Your task to perform on an android device: open a new tab in the chrome app Image 0: 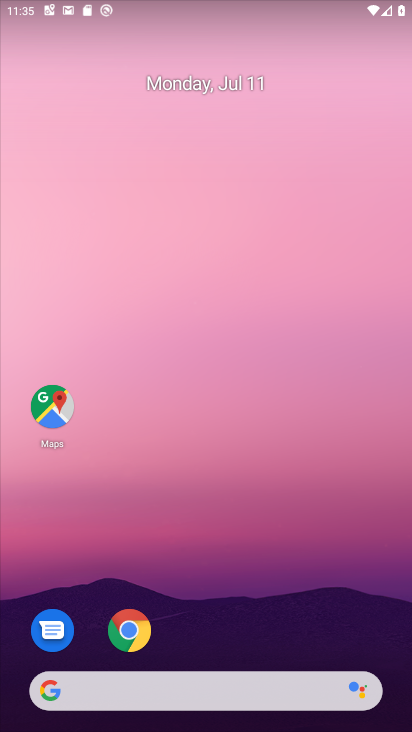
Step 0: drag from (267, 643) to (255, 168)
Your task to perform on an android device: open a new tab in the chrome app Image 1: 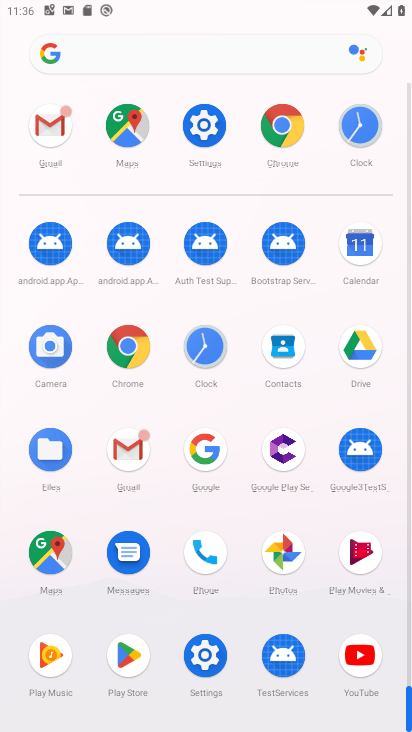
Step 1: click (138, 372)
Your task to perform on an android device: open a new tab in the chrome app Image 2: 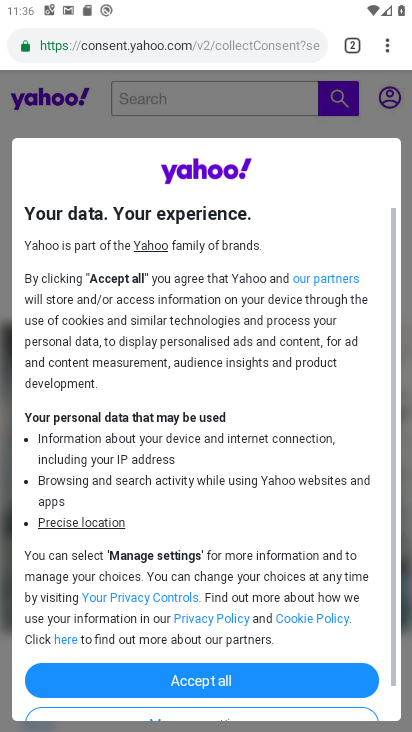
Step 2: drag from (350, 46) to (372, 364)
Your task to perform on an android device: open a new tab in the chrome app Image 3: 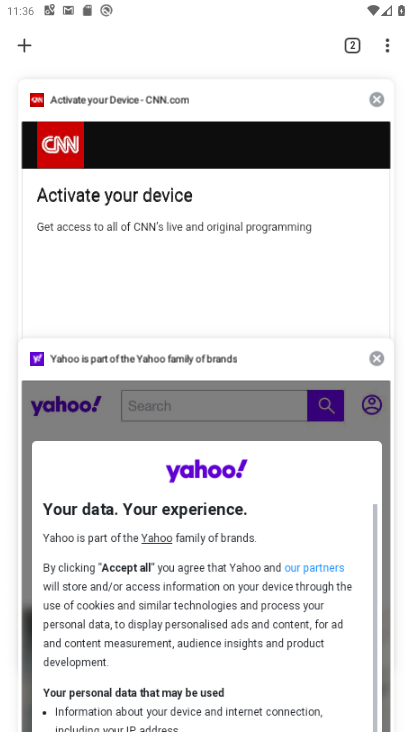
Step 3: click (24, 40)
Your task to perform on an android device: open a new tab in the chrome app Image 4: 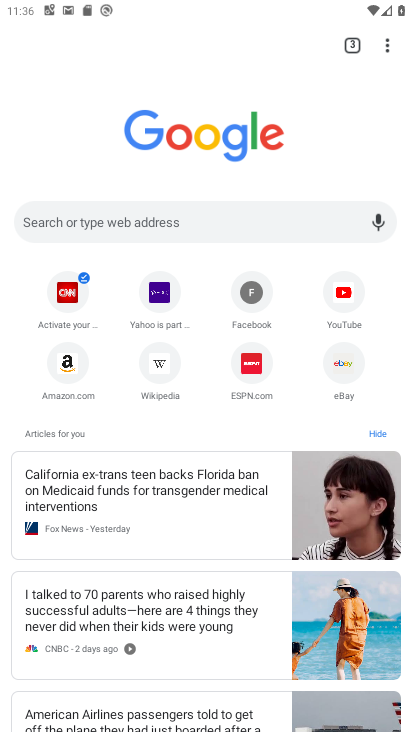
Step 4: task complete